Your task to perform on an android device: turn on location history Image 0: 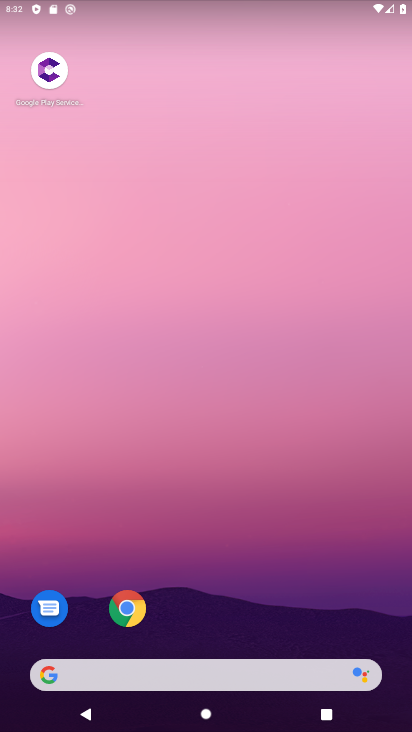
Step 0: drag from (246, 586) to (160, 206)
Your task to perform on an android device: turn on location history Image 1: 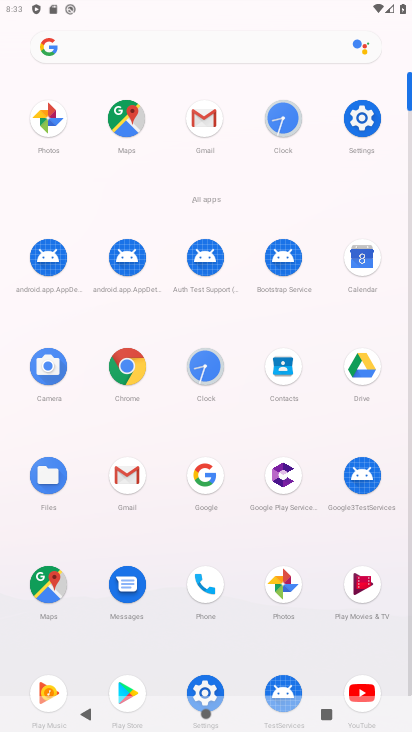
Step 1: click (362, 117)
Your task to perform on an android device: turn on location history Image 2: 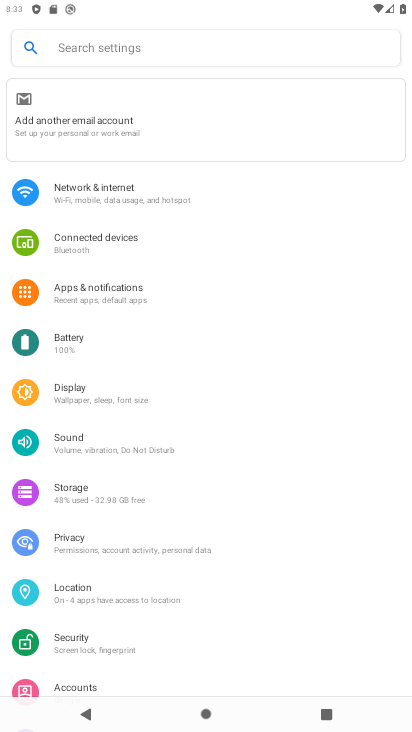
Step 2: drag from (121, 471) to (133, 393)
Your task to perform on an android device: turn on location history Image 3: 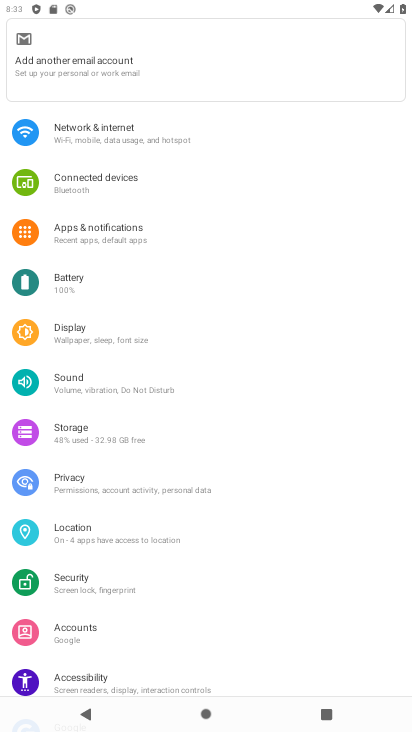
Step 3: click (68, 529)
Your task to perform on an android device: turn on location history Image 4: 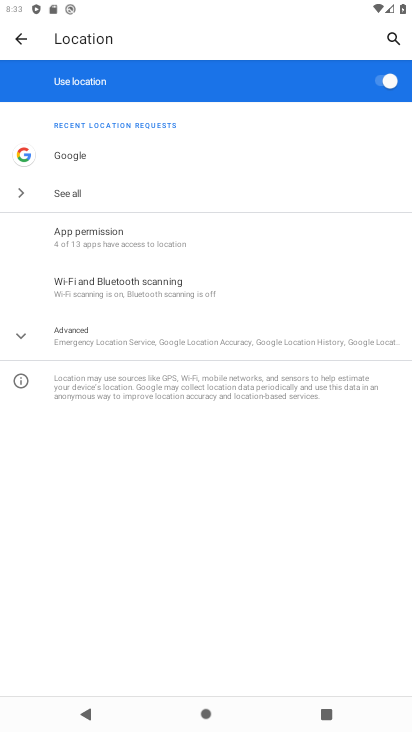
Step 4: click (75, 329)
Your task to perform on an android device: turn on location history Image 5: 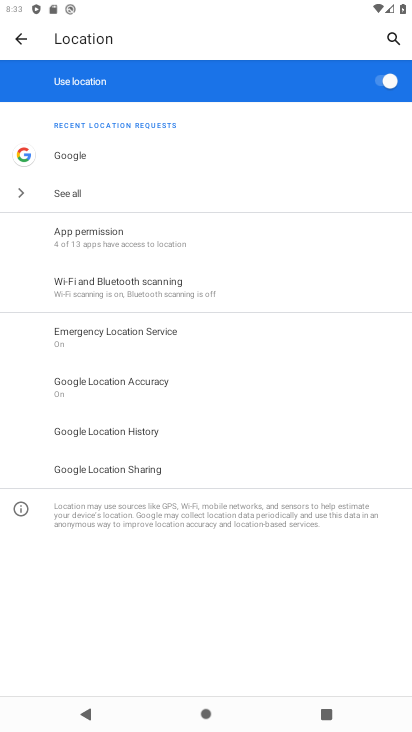
Step 5: click (115, 429)
Your task to perform on an android device: turn on location history Image 6: 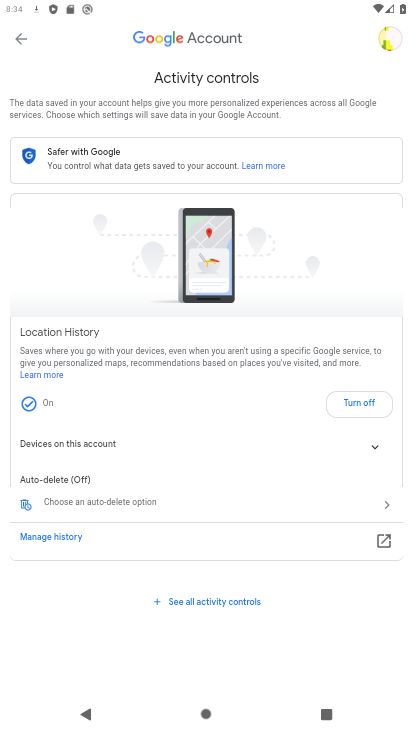
Step 6: task complete